Your task to perform on an android device: turn off location Image 0: 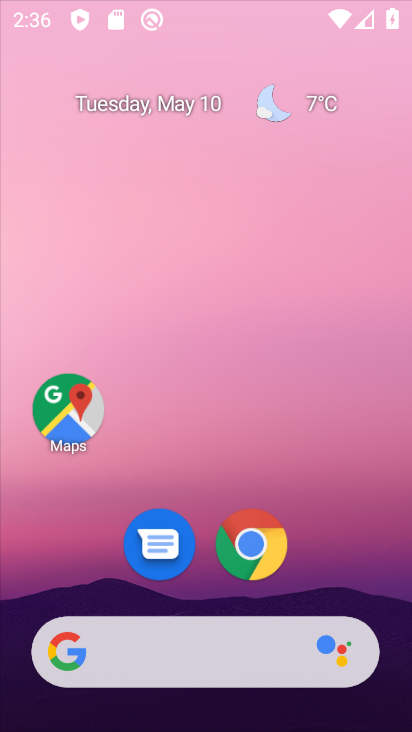
Step 0: drag from (352, 542) to (383, 201)
Your task to perform on an android device: turn off location Image 1: 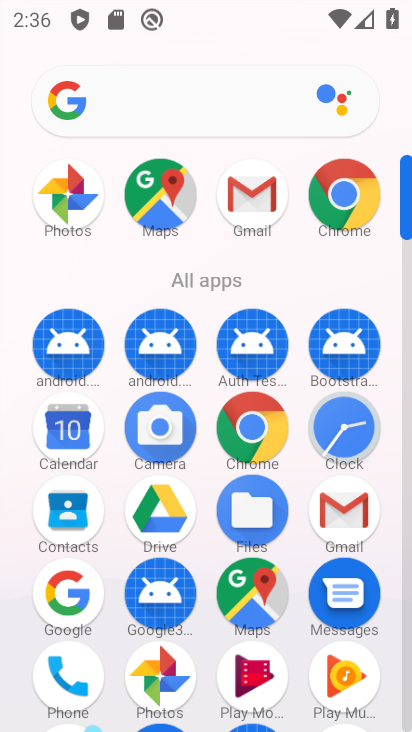
Step 1: drag from (205, 607) to (249, 242)
Your task to perform on an android device: turn off location Image 2: 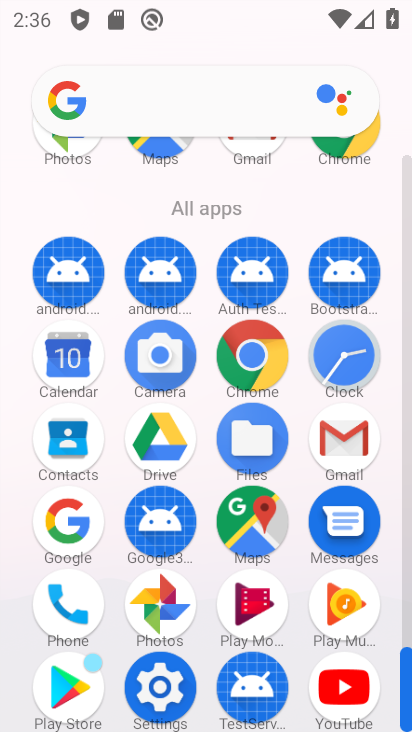
Step 2: click (161, 675)
Your task to perform on an android device: turn off location Image 3: 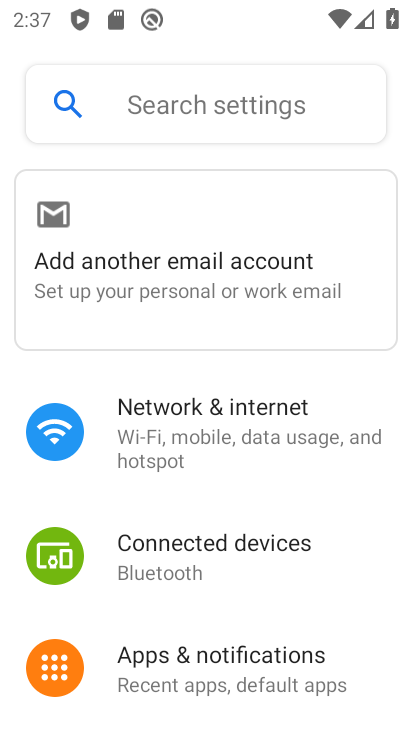
Step 3: drag from (258, 660) to (284, 308)
Your task to perform on an android device: turn off location Image 4: 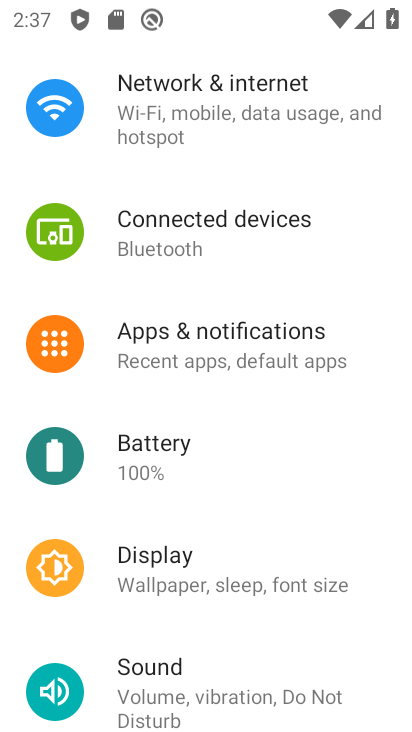
Step 4: drag from (276, 625) to (316, 304)
Your task to perform on an android device: turn off location Image 5: 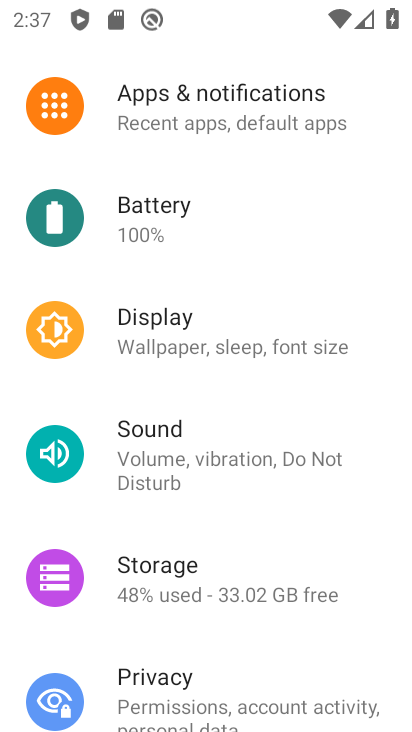
Step 5: drag from (288, 673) to (321, 265)
Your task to perform on an android device: turn off location Image 6: 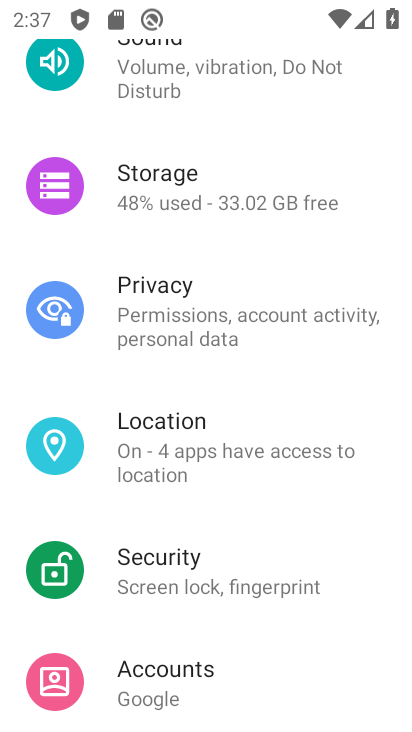
Step 6: click (257, 470)
Your task to perform on an android device: turn off location Image 7: 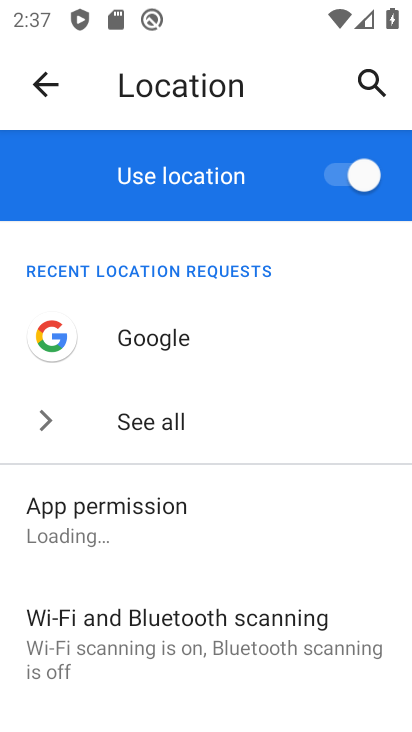
Step 7: click (326, 178)
Your task to perform on an android device: turn off location Image 8: 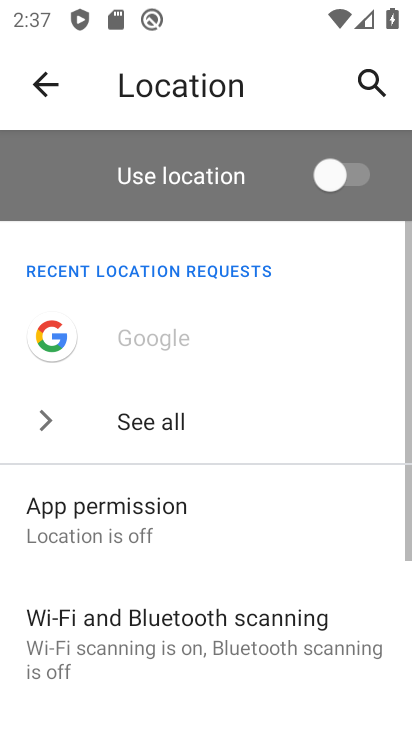
Step 8: task complete